Your task to perform on an android device: Open the calendar app, open the side menu, and click the "Day" option Image 0: 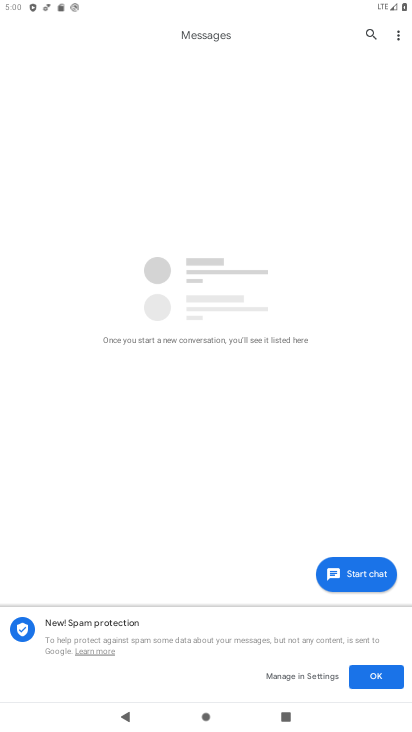
Step 0: drag from (207, 634) to (165, 131)
Your task to perform on an android device: Open the calendar app, open the side menu, and click the "Day" option Image 1: 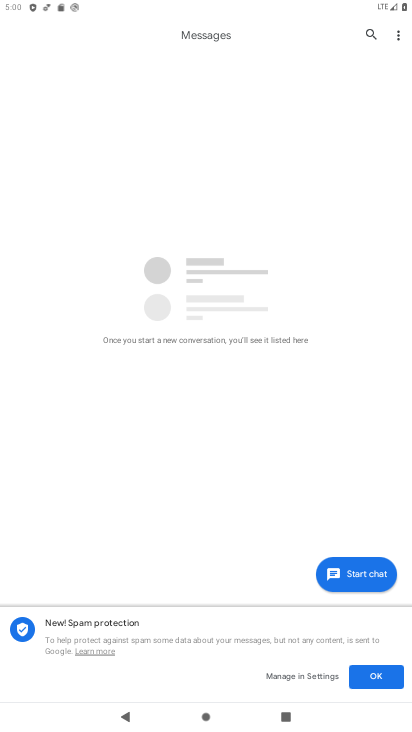
Step 1: press home button
Your task to perform on an android device: Open the calendar app, open the side menu, and click the "Day" option Image 2: 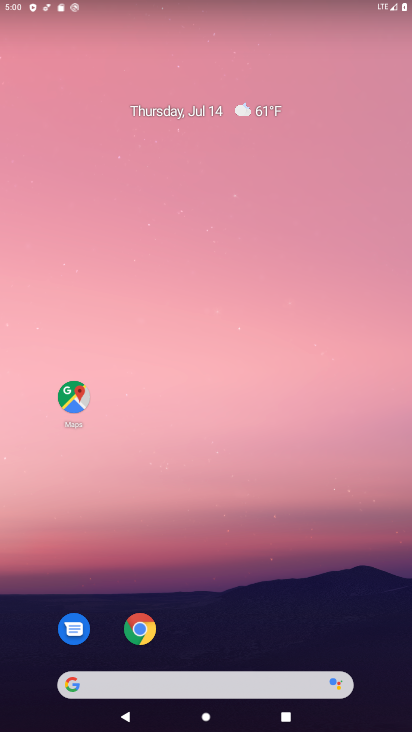
Step 2: drag from (257, 616) to (232, 5)
Your task to perform on an android device: Open the calendar app, open the side menu, and click the "Day" option Image 3: 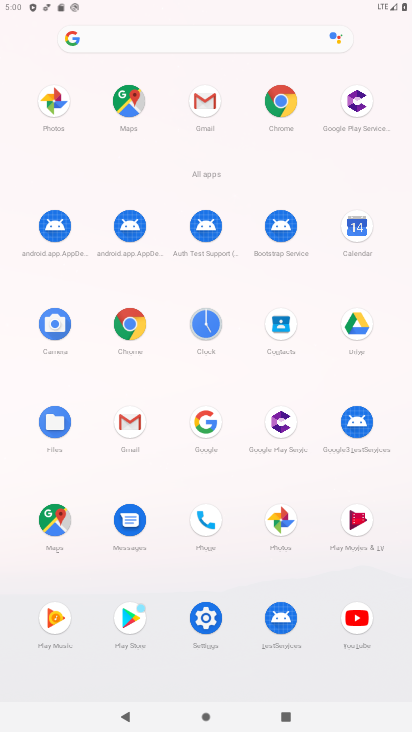
Step 3: click (343, 222)
Your task to perform on an android device: Open the calendar app, open the side menu, and click the "Day" option Image 4: 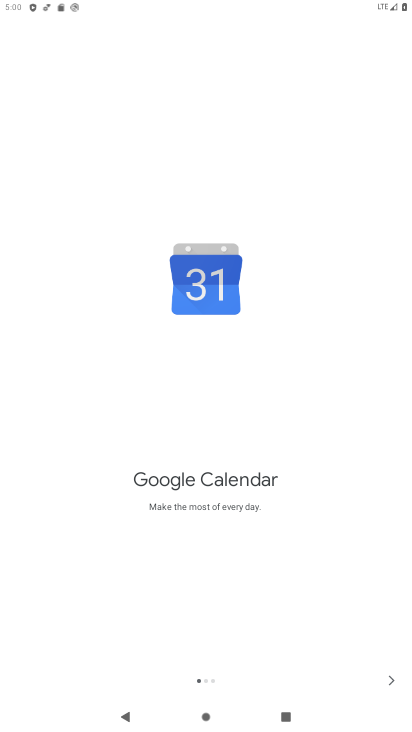
Step 4: click (389, 667)
Your task to perform on an android device: Open the calendar app, open the side menu, and click the "Day" option Image 5: 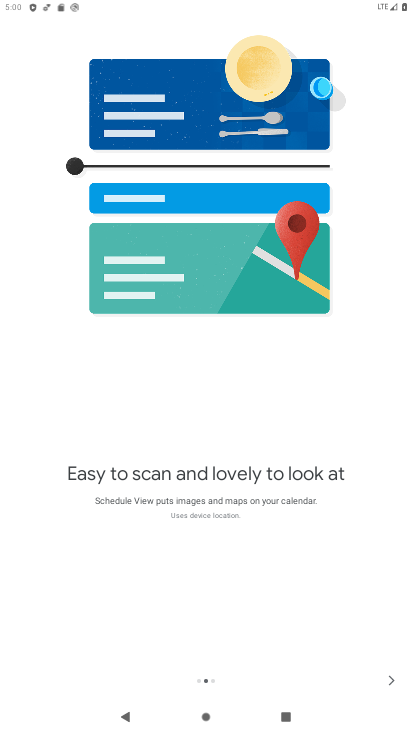
Step 5: click (389, 667)
Your task to perform on an android device: Open the calendar app, open the side menu, and click the "Day" option Image 6: 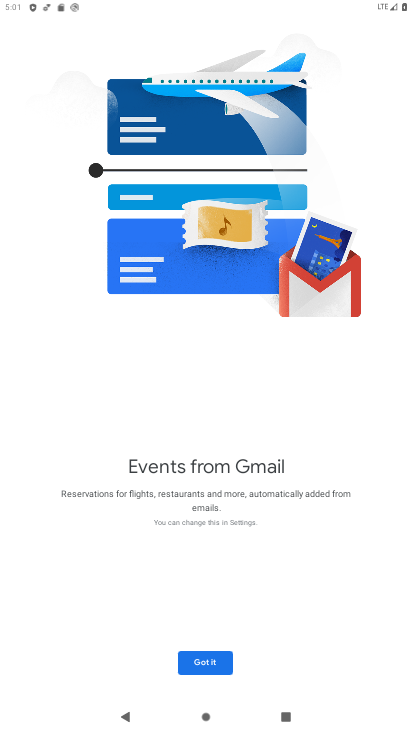
Step 6: click (193, 663)
Your task to perform on an android device: Open the calendar app, open the side menu, and click the "Day" option Image 7: 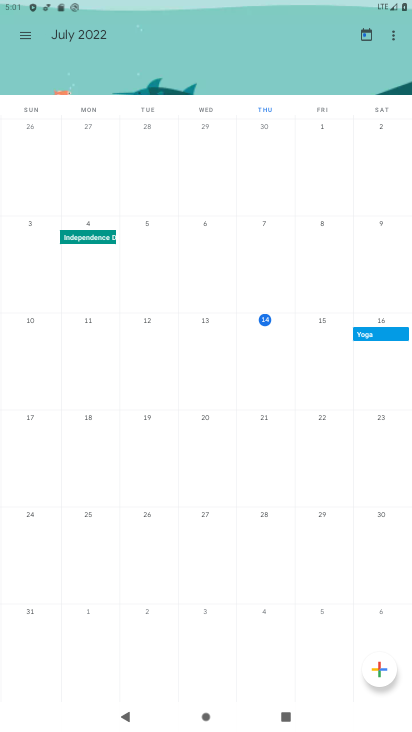
Step 7: click (20, 29)
Your task to perform on an android device: Open the calendar app, open the side menu, and click the "Day" option Image 8: 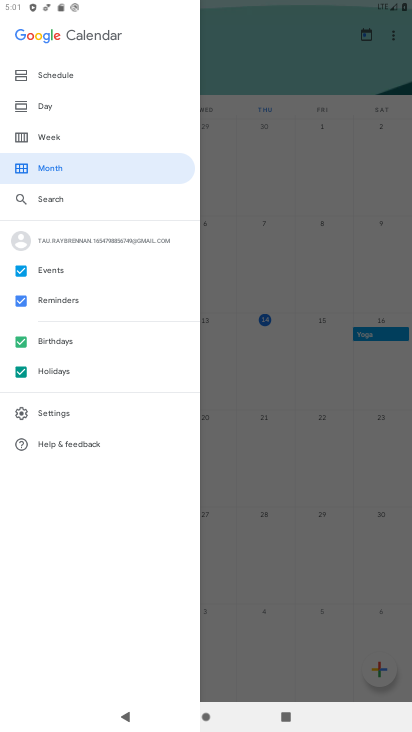
Step 8: click (38, 95)
Your task to perform on an android device: Open the calendar app, open the side menu, and click the "Day" option Image 9: 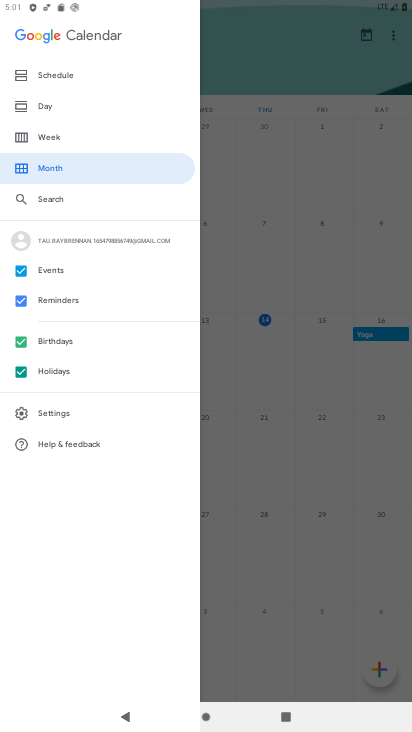
Step 9: click (38, 102)
Your task to perform on an android device: Open the calendar app, open the side menu, and click the "Day" option Image 10: 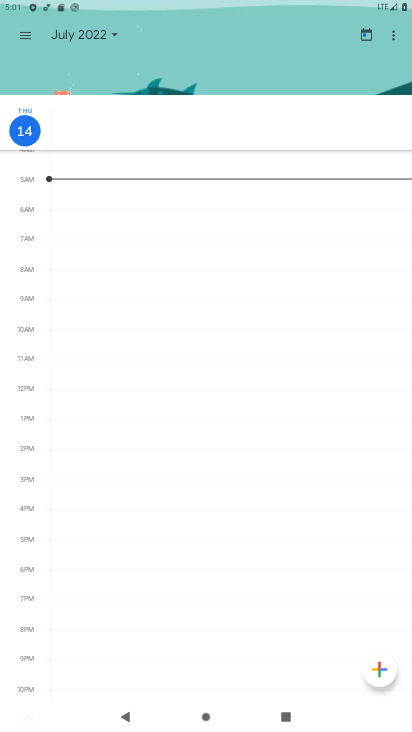
Step 10: task complete